Your task to perform on an android device: turn on translation in the chrome app Image 0: 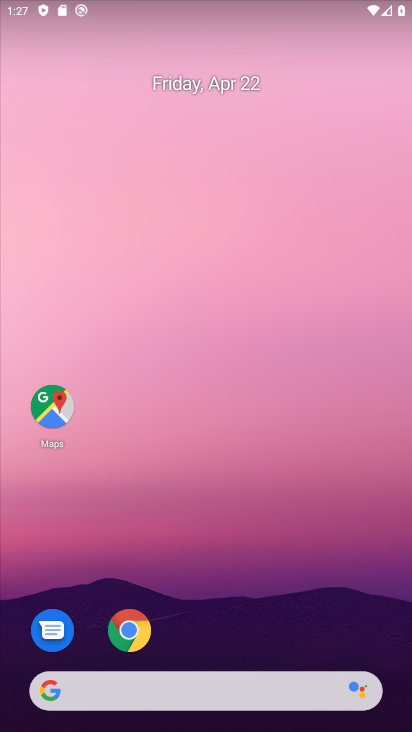
Step 0: drag from (191, 728) to (216, 272)
Your task to perform on an android device: turn on translation in the chrome app Image 1: 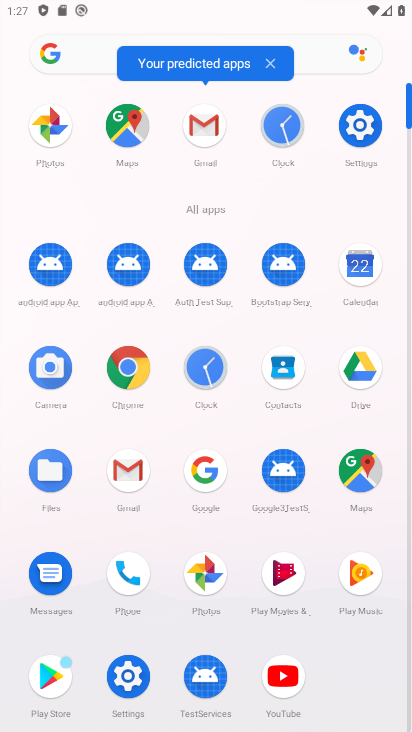
Step 1: click (147, 375)
Your task to perform on an android device: turn on translation in the chrome app Image 2: 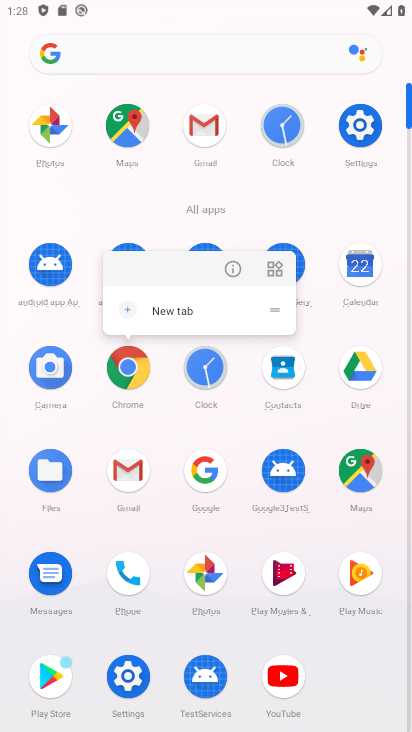
Step 2: click (123, 370)
Your task to perform on an android device: turn on translation in the chrome app Image 3: 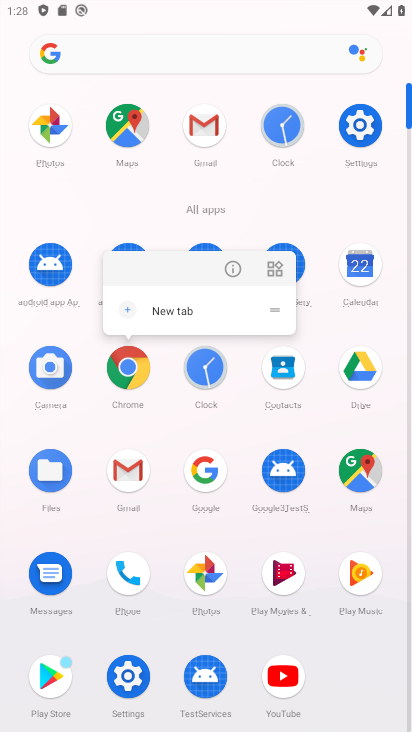
Step 3: click (131, 385)
Your task to perform on an android device: turn on translation in the chrome app Image 4: 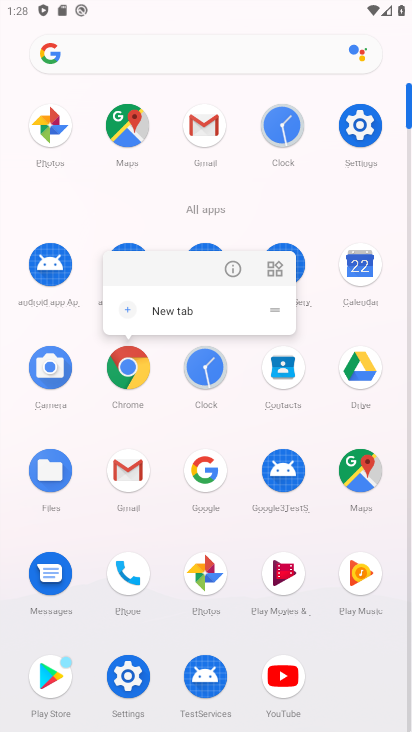
Step 4: click (131, 385)
Your task to perform on an android device: turn on translation in the chrome app Image 5: 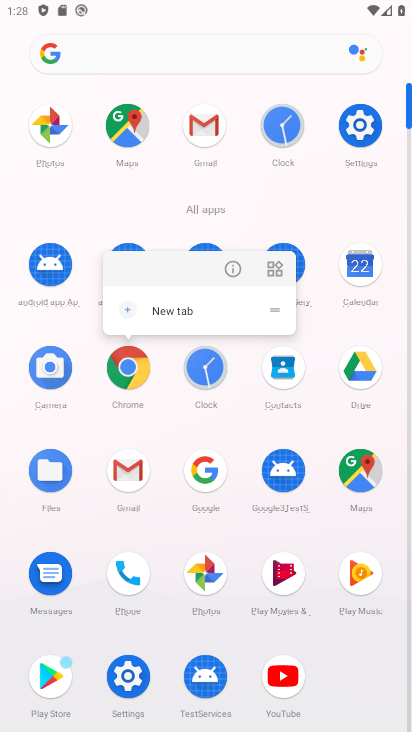
Step 5: click (131, 385)
Your task to perform on an android device: turn on translation in the chrome app Image 6: 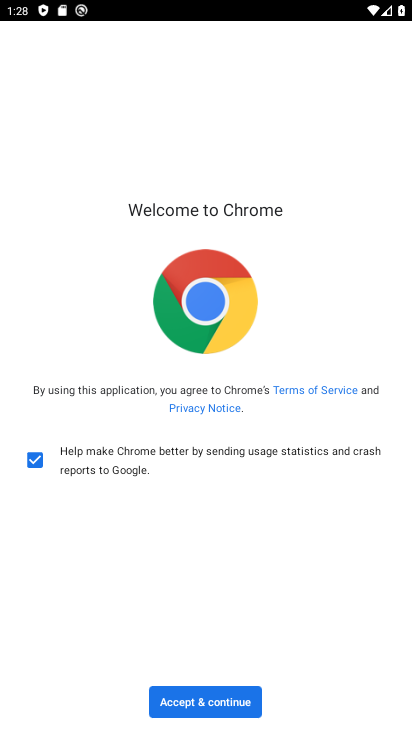
Step 6: click (131, 385)
Your task to perform on an android device: turn on translation in the chrome app Image 7: 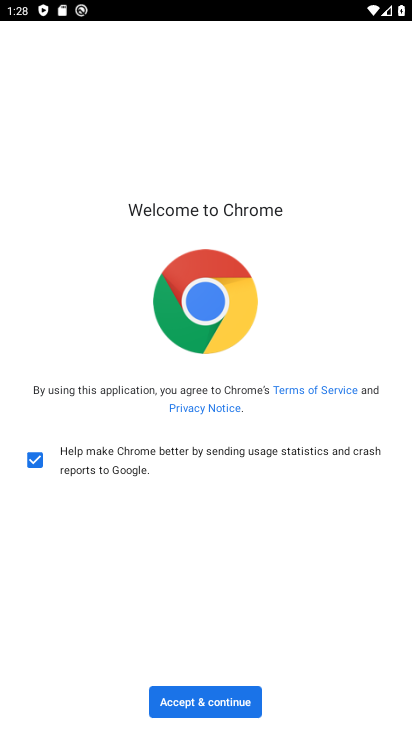
Step 7: click (246, 706)
Your task to perform on an android device: turn on translation in the chrome app Image 8: 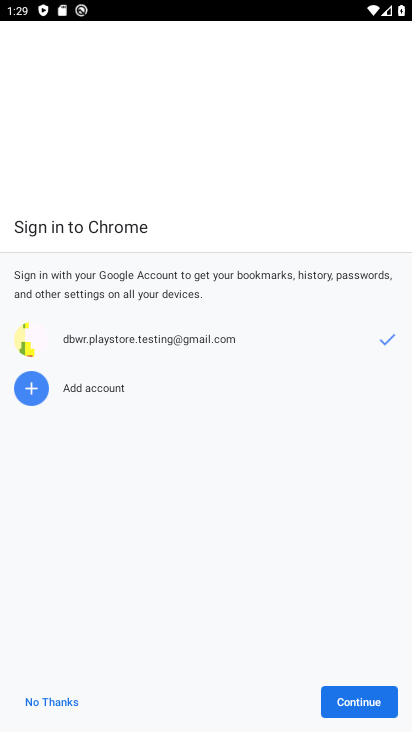
Step 8: click (365, 708)
Your task to perform on an android device: turn on translation in the chrome app Image 9: 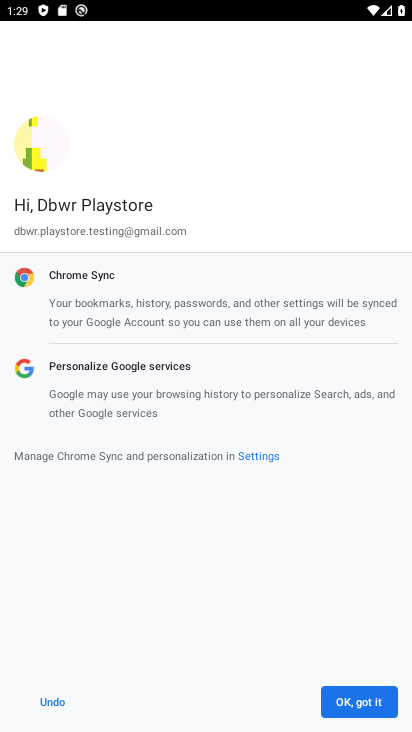
Step 9: click (352, 701)
Your task to perform on an android device: turn on translation in the chrome app Image 10: 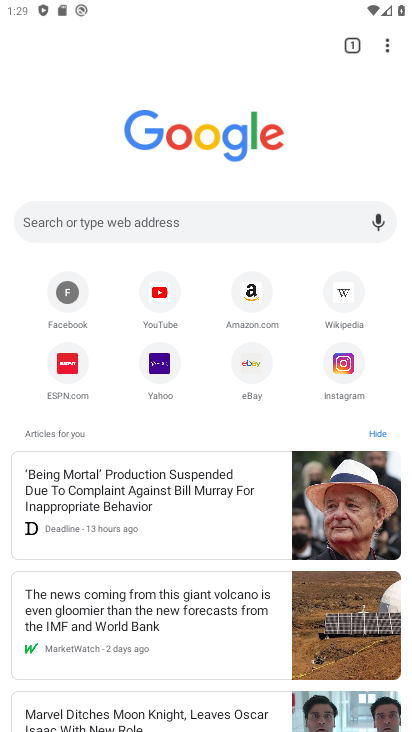
Step 10: drag from (389, 49) to (217, 438)
Your task to perform on an android device: turn on translation in the chrome app Image 11: 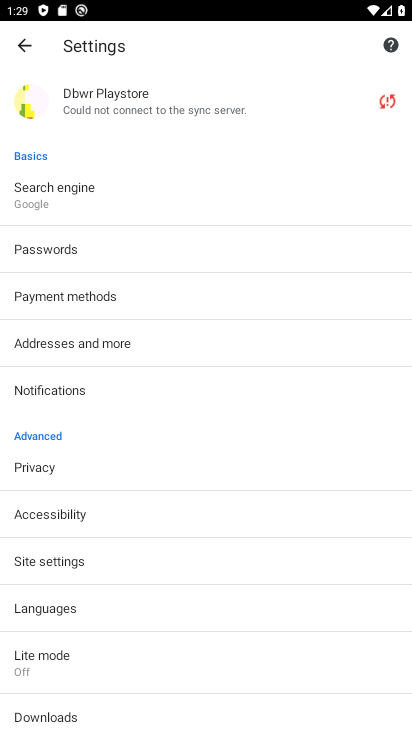
Step 11: click (71, 613)
Your task to perform on an android device: turn on translation in the chrome app Image 12: 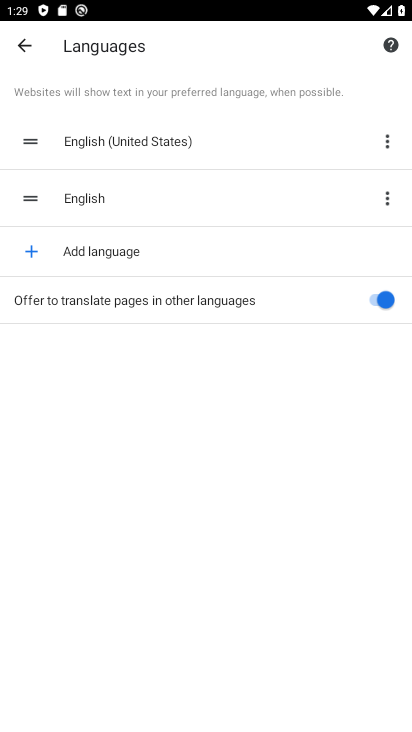
Step 12: click (373, 305)
Your task to perform on an android device: turn on translation in the chrome app Image 13: 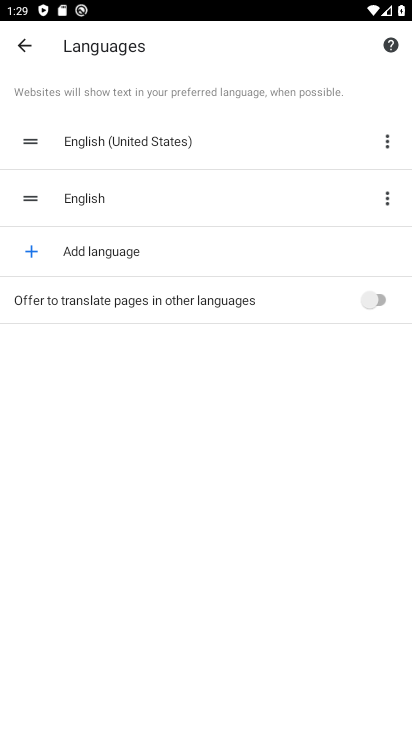
Step 13: task complete